Your task to perform on an android device: toggle sleep mode Image 0: 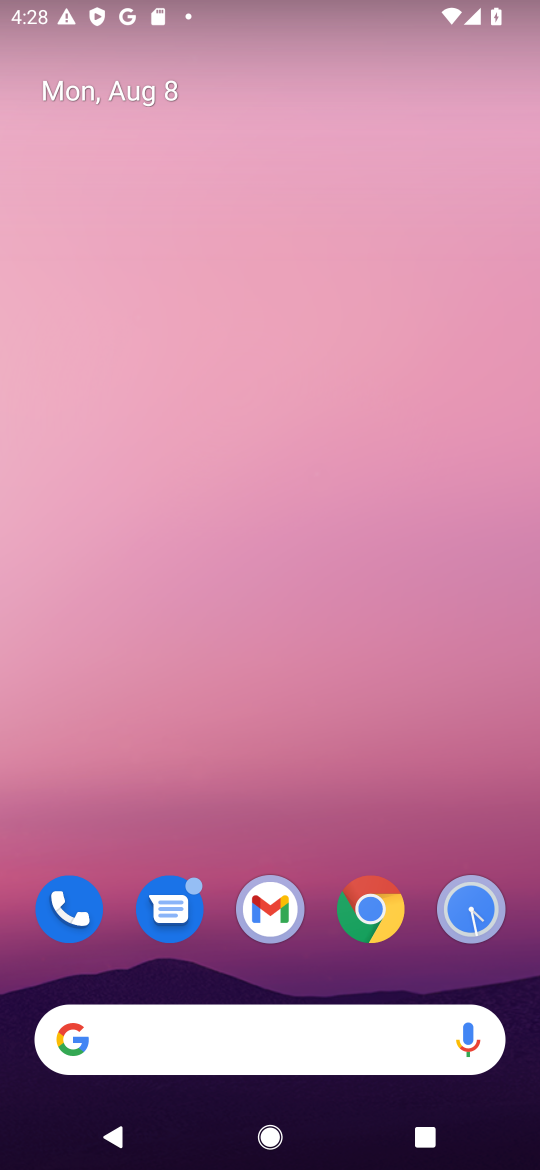
Step 0: drag from (240, 1028) to (401, 91)
Your task to perform on an android device: toggle sleep mode Image 1: 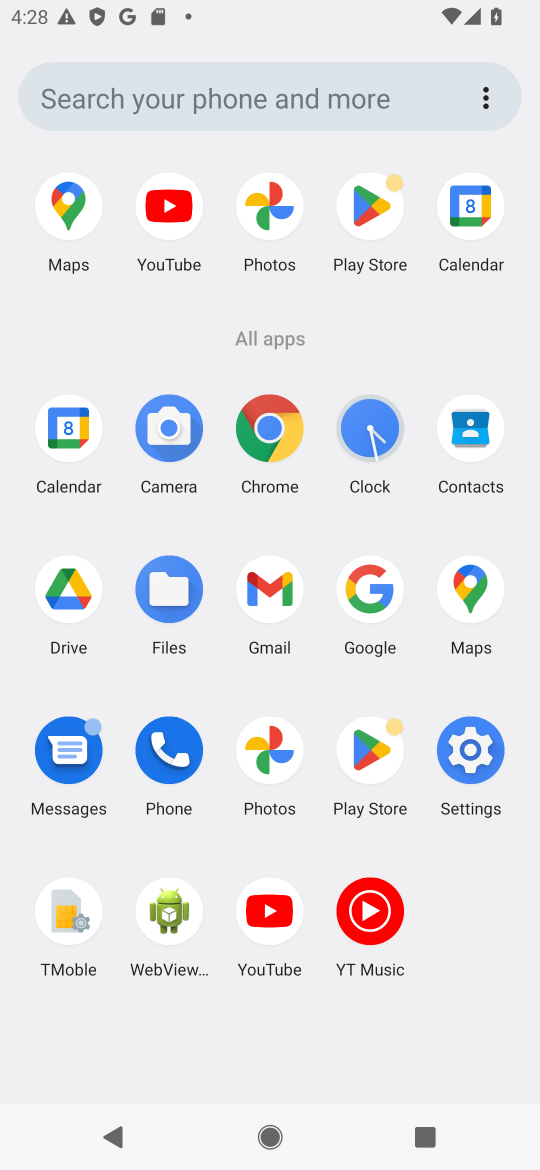
Step 1: click (479, 742)
Your task to perform on an android device: toggle sleep mode Image 2: 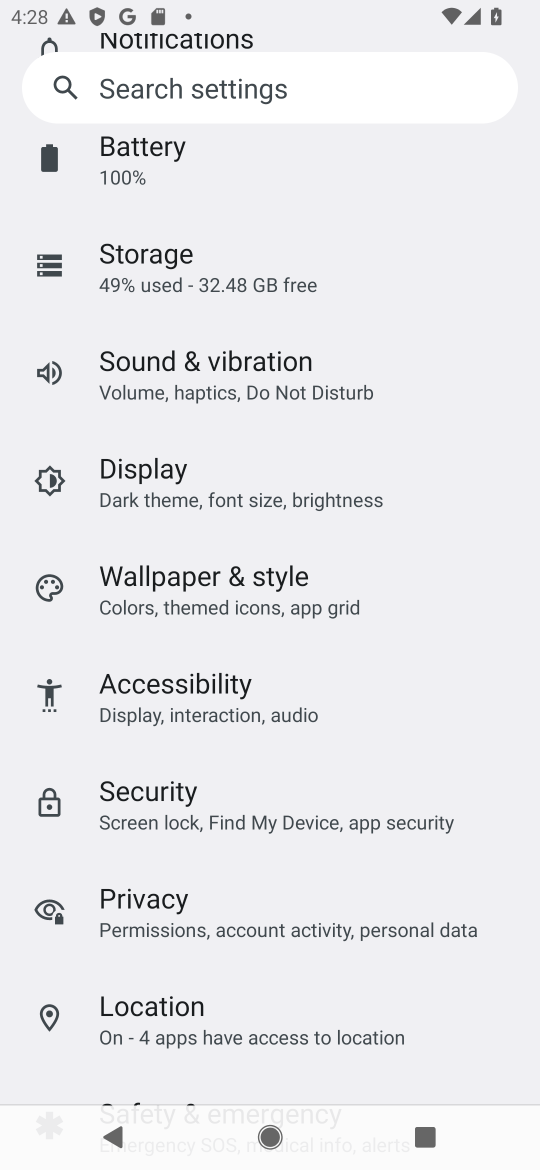
Step 2: click (267, 490)
Your task to perform on an android device: toggle sleep mode Image 3: 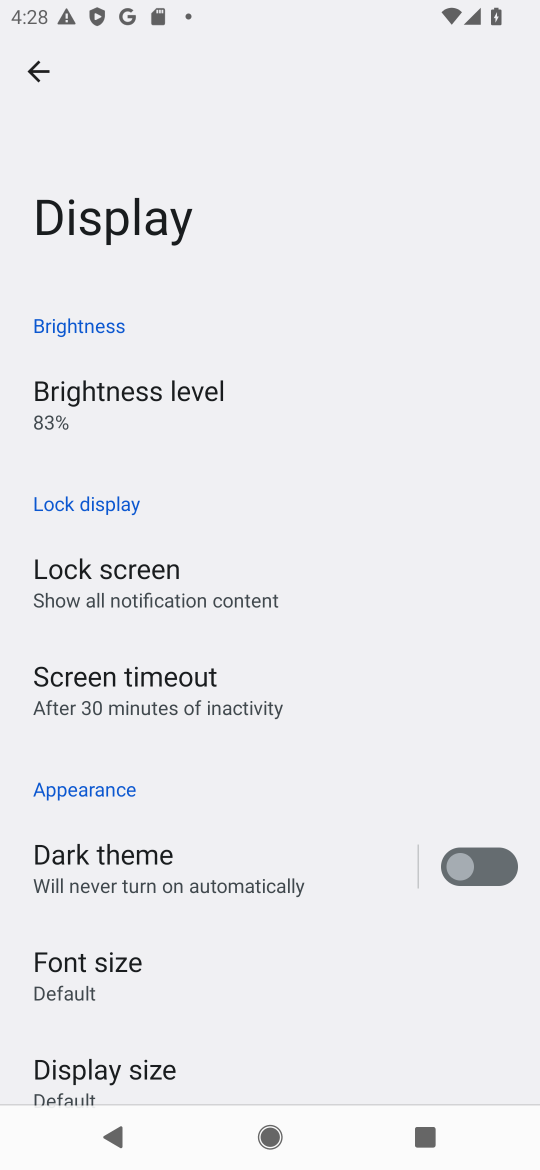
Step 3: task complete